Your task to perform on an android device: Go to Google maps Image 0: 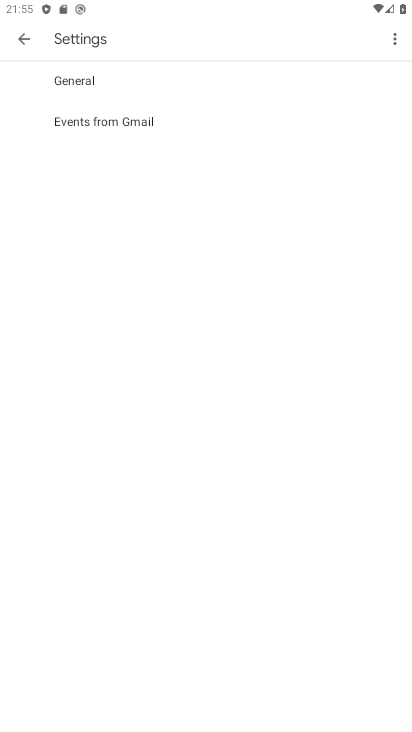
Step 0: drag from (51, 2) to (67, 445)
Your task to perform on an android device: Go to Google maps Image 1: 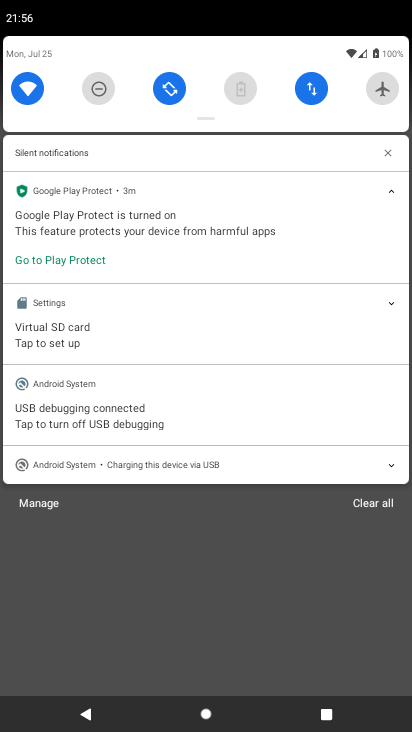
Step 1: press home button
Your task to perform on an android device: Go to Google maps Image 2: 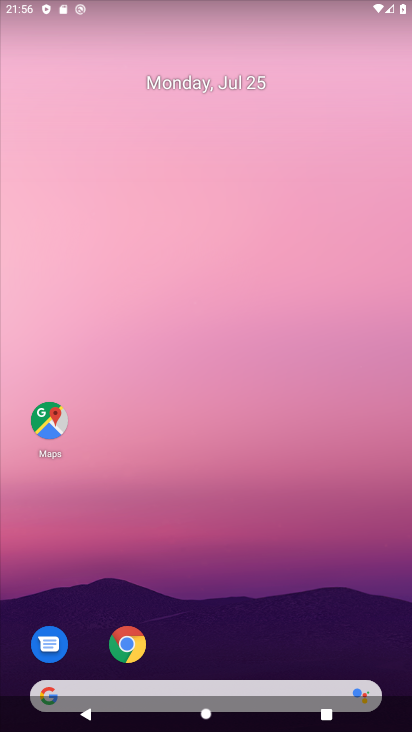
Step 2: drag from (276, 614) to (316, 92)
Your task to perform on an android device: Go to Google maps Image 3: 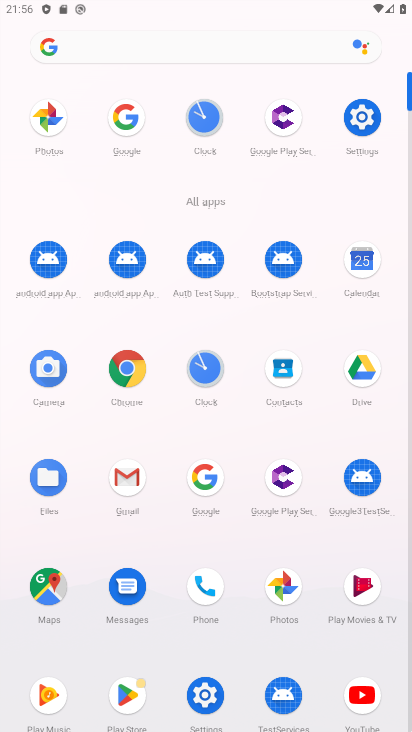
Step 3: click (57, 585)
Your task to perform on an android device: Go to Google maps Image 4: 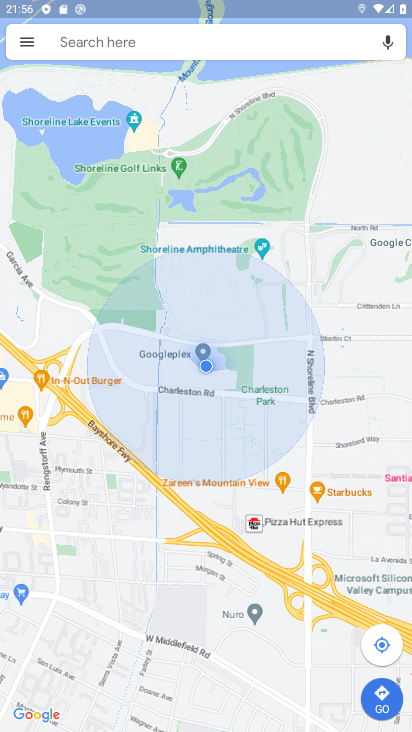
Step 4: task complete